Your task to perform on an android device: turn on wifi Image 0: 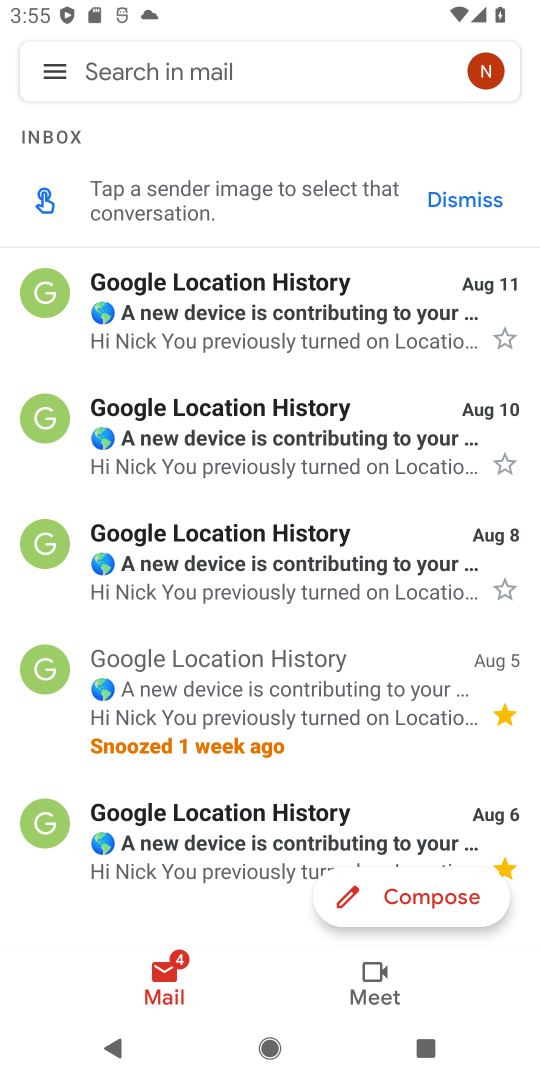
Step 0: press home button
Your task to perform on an android device: turn on wifi Image 1: 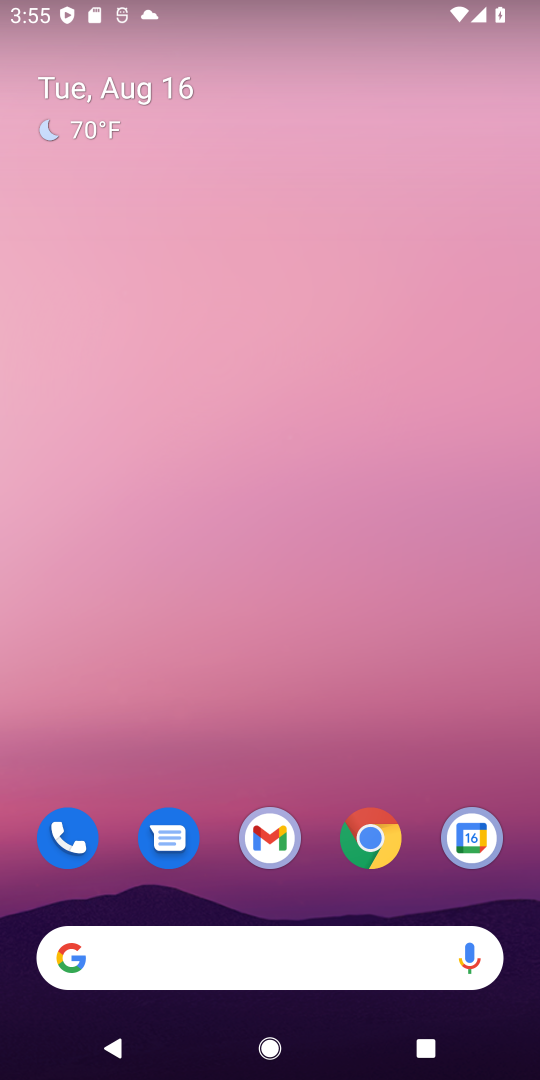
Step 1: task complete